Your task to perform on an android device: Open privacy settings Image 0: 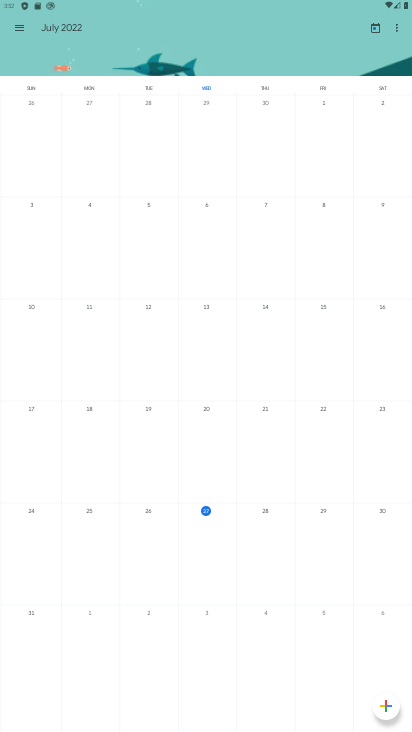
Step 0: press home button
Your task to perform on an android device: Open privacy settings Image 1: 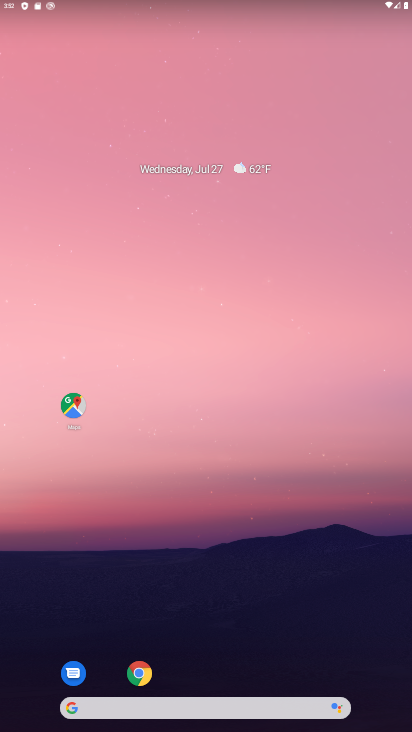
Step 1: drag from (36, 566) to (256, 110)
Your task to perform on an android device: Open privacy settings Image 2: 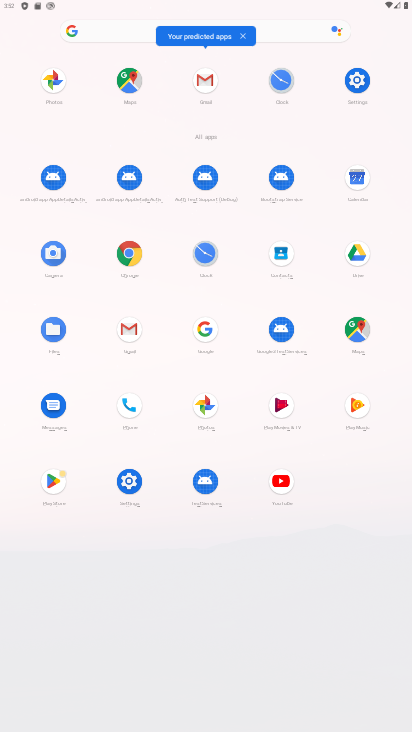
Step 2: click (361, 79)
Your task to perform on an android device: Open privacy settings Image 3: 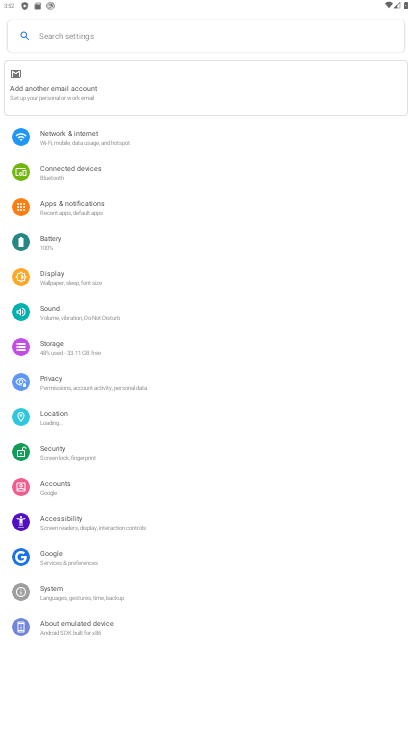
Step 3: click (73, 381)
Your task to perform on an android device: Open privacy settings Image 4: 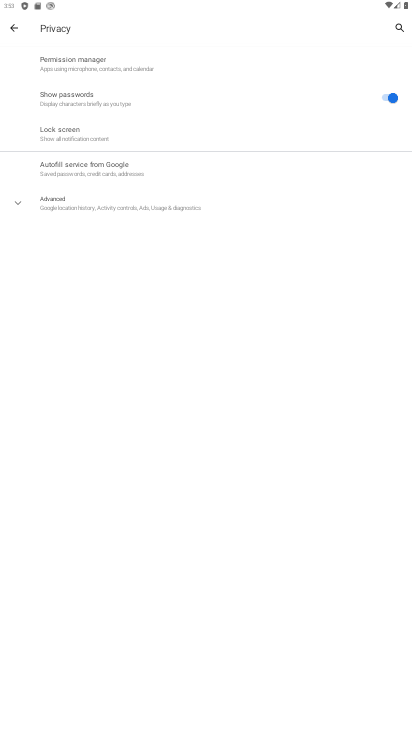
Step 4: task complete